Your task to perform on an android device: Search for a home improvement project you can do. Image 0: 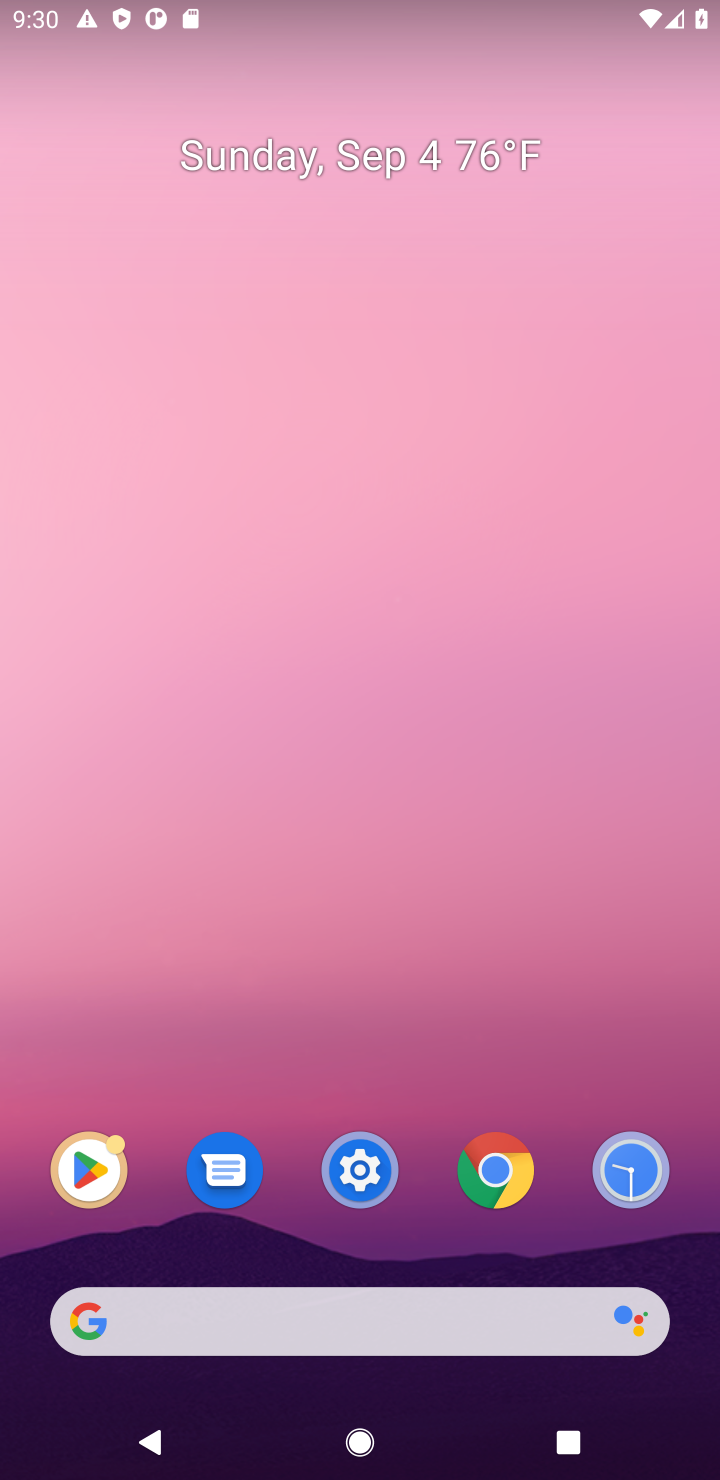
Step 0: click (654, 481)
Your task to perform on an android device: Search for a home improvement project you can do. Image 1: 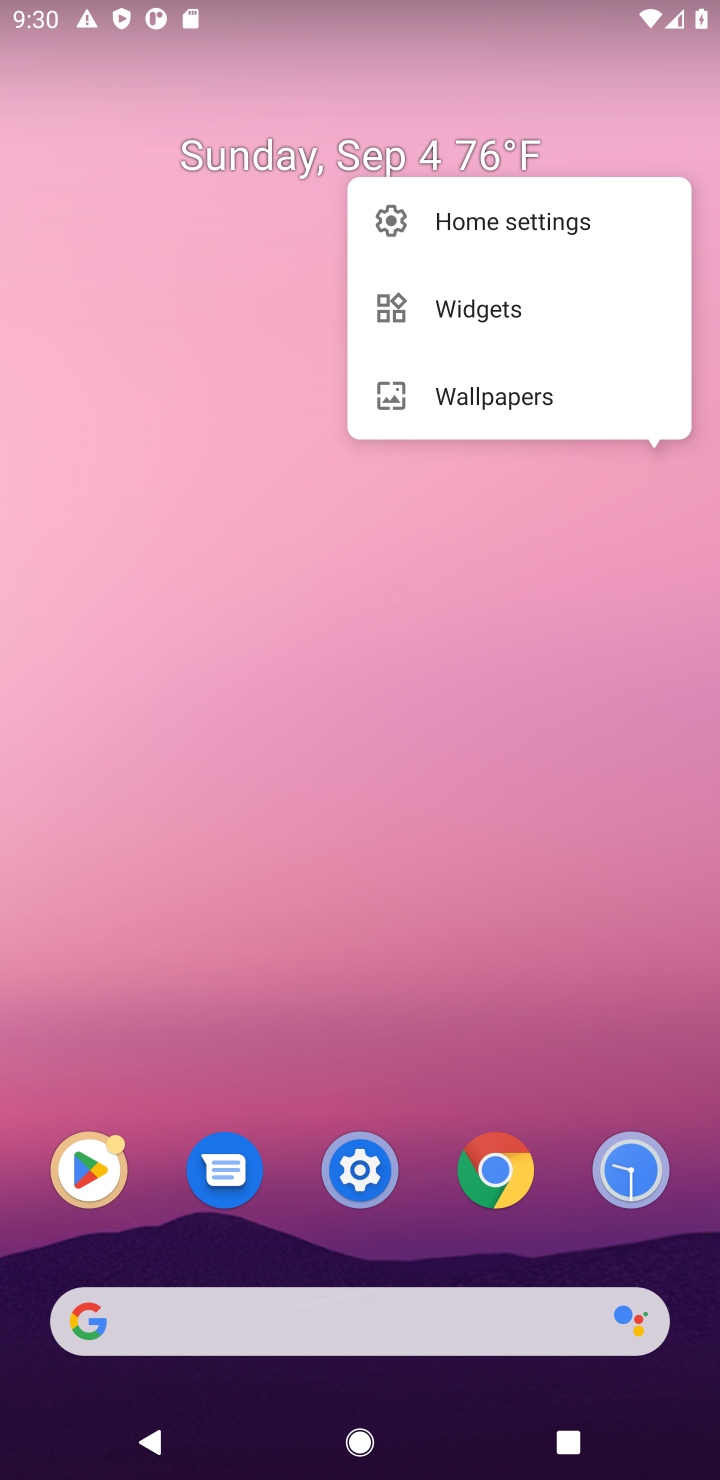
Step 1: click (430, 1329)
Your task to perform on an android device: Search for a home improvement project you can do. Image 2: 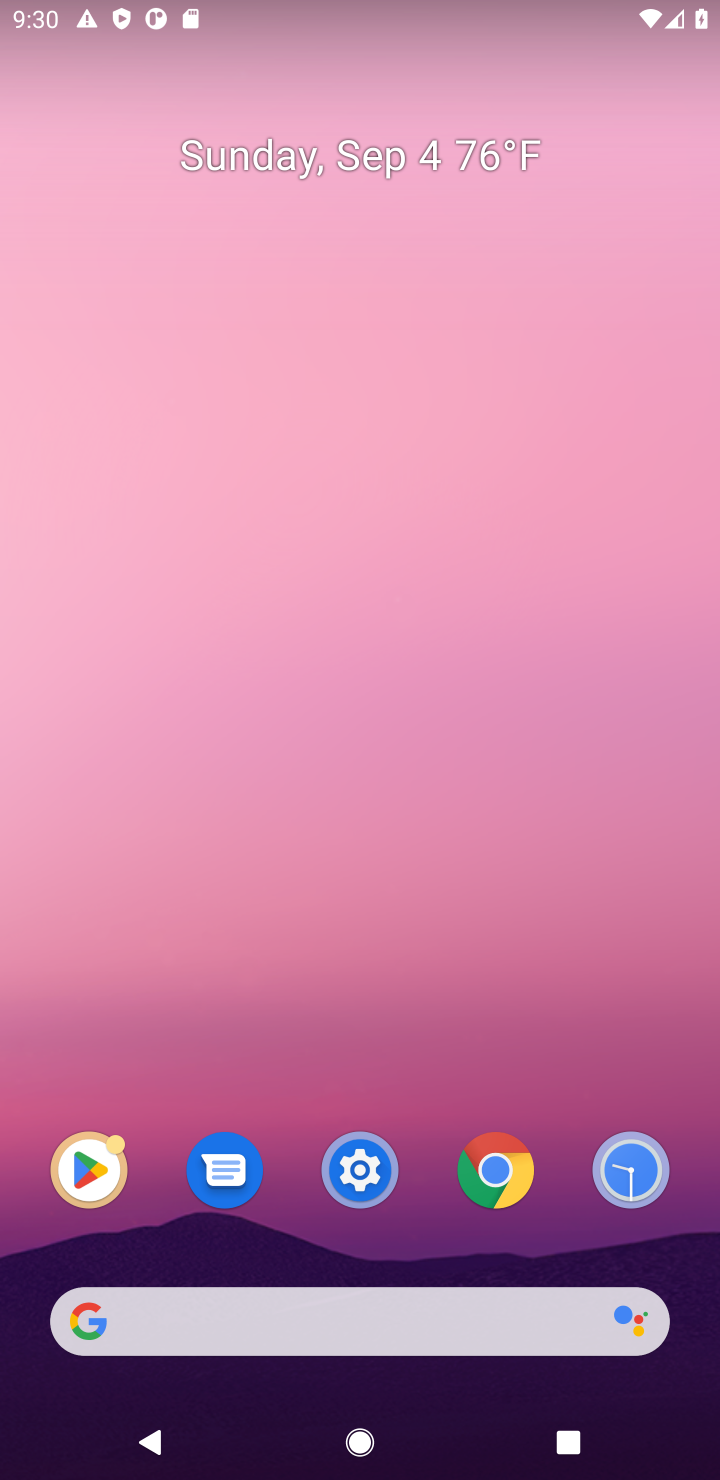
Step 2: click (430, 1332)
Your task to perform on an android device: Search for a home improvement project you can do. Image 3: 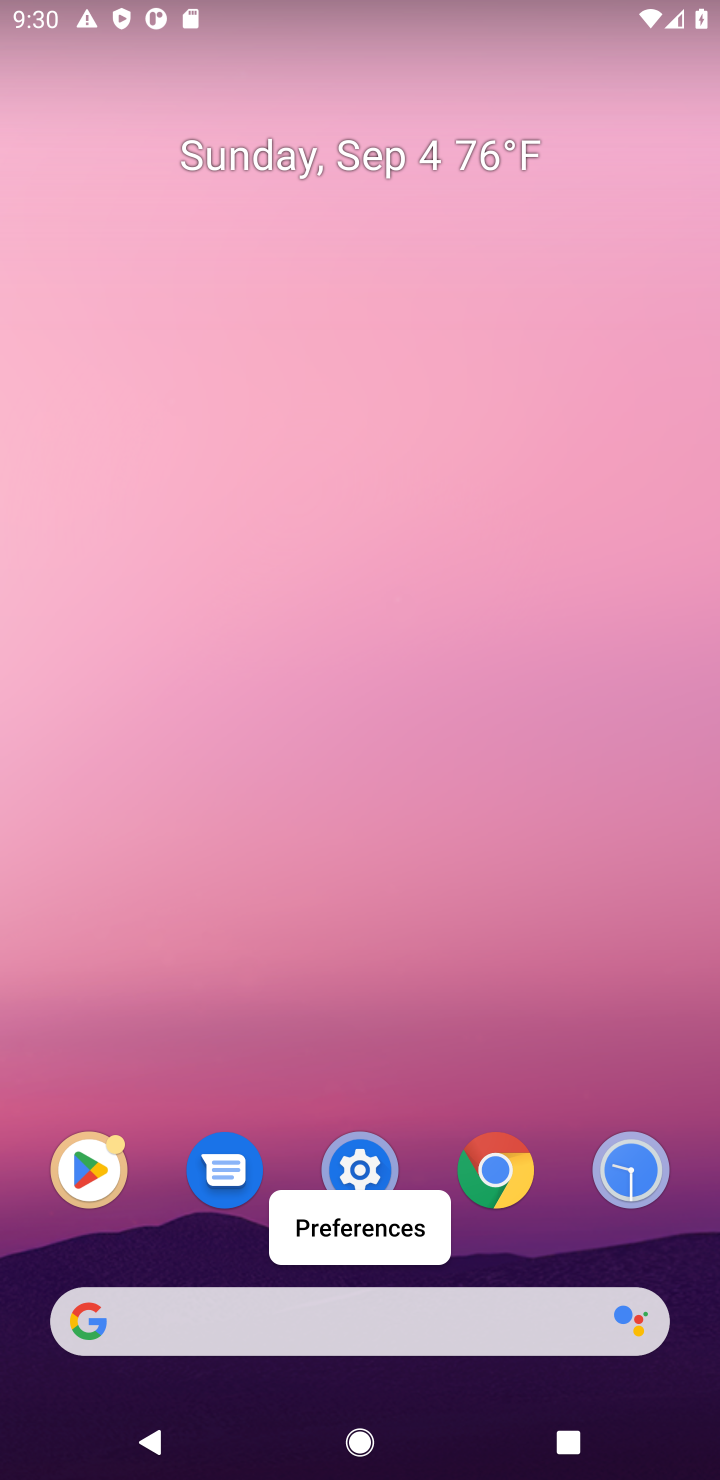
Step 3: click (439, 1327)
Your task to perform on an android device: Search for a home improvement project you can do. Image 4: 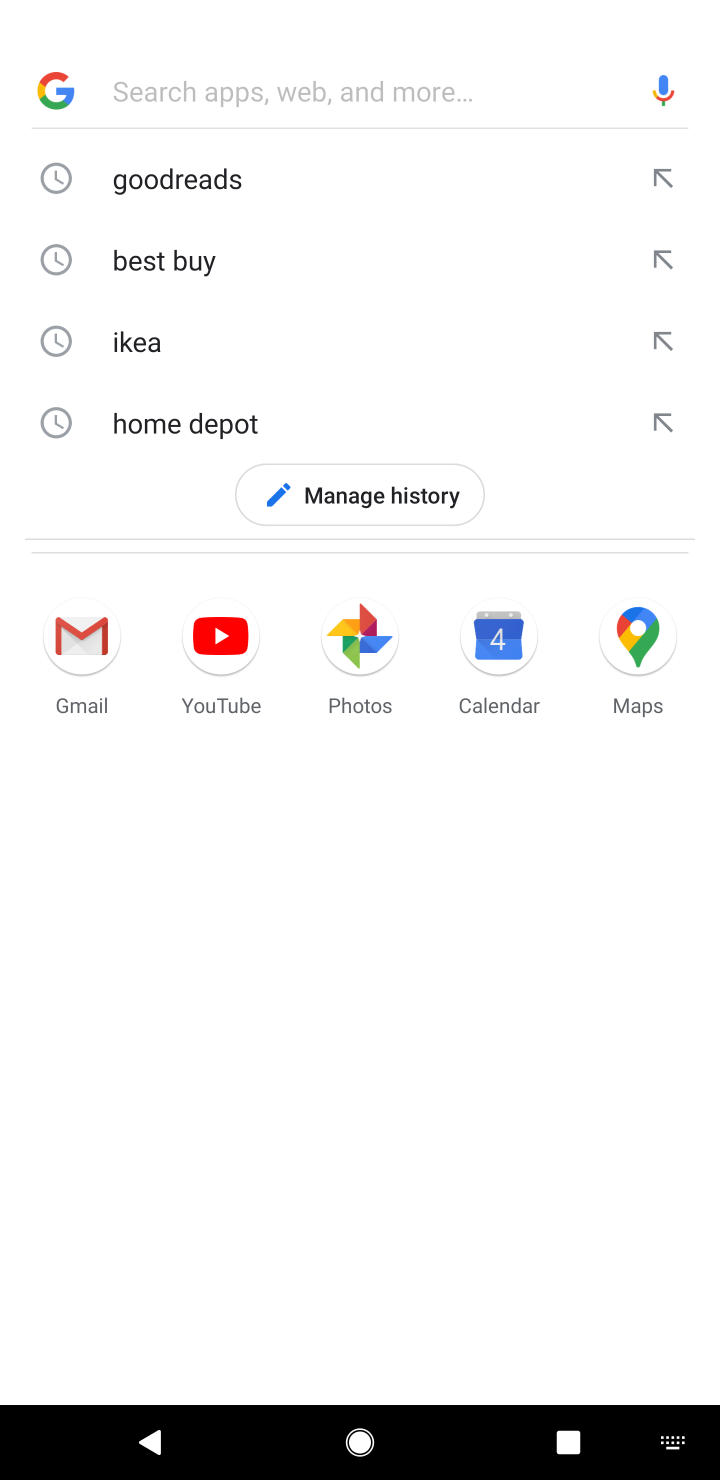
Step 4: type "home improvement project you can do"
Your task to perform on an android device: Search for a home improvement project you can do. Image 5: 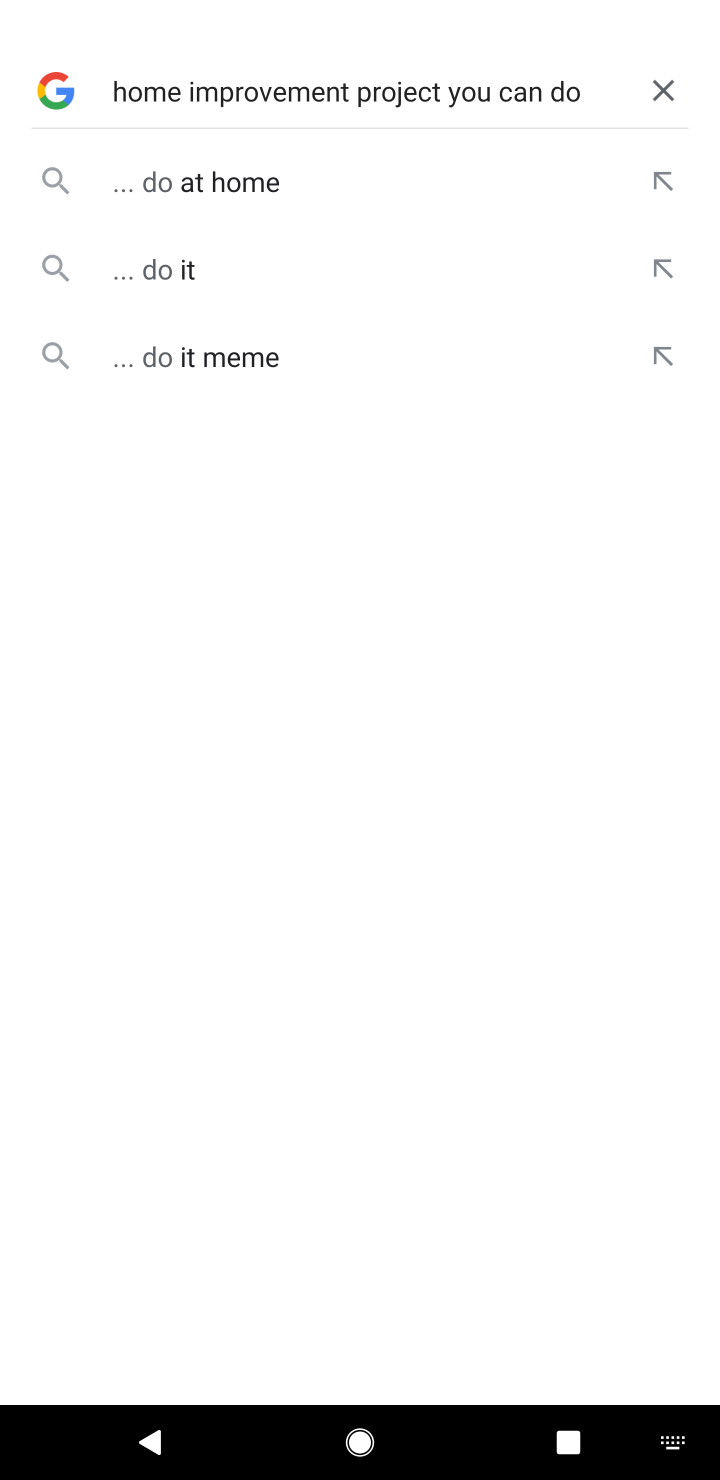
Step 5: click (342, 180)
Your task to perform on an android device: Search for a home improvement project you can do. Image 6: 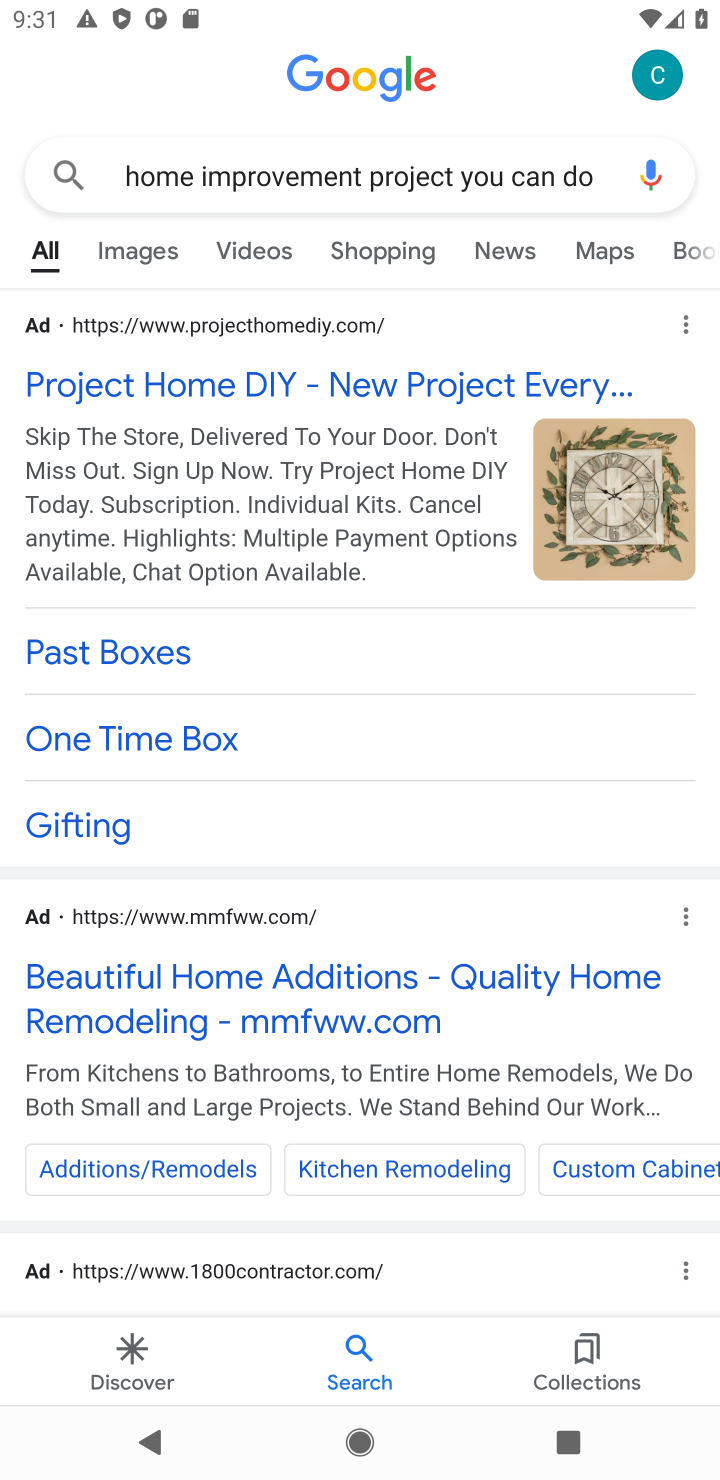
Step 6: drag from (400, 881) to (408, 627)
Your task to perform on an android device: Search for a home improvement project you can do. Image 7: 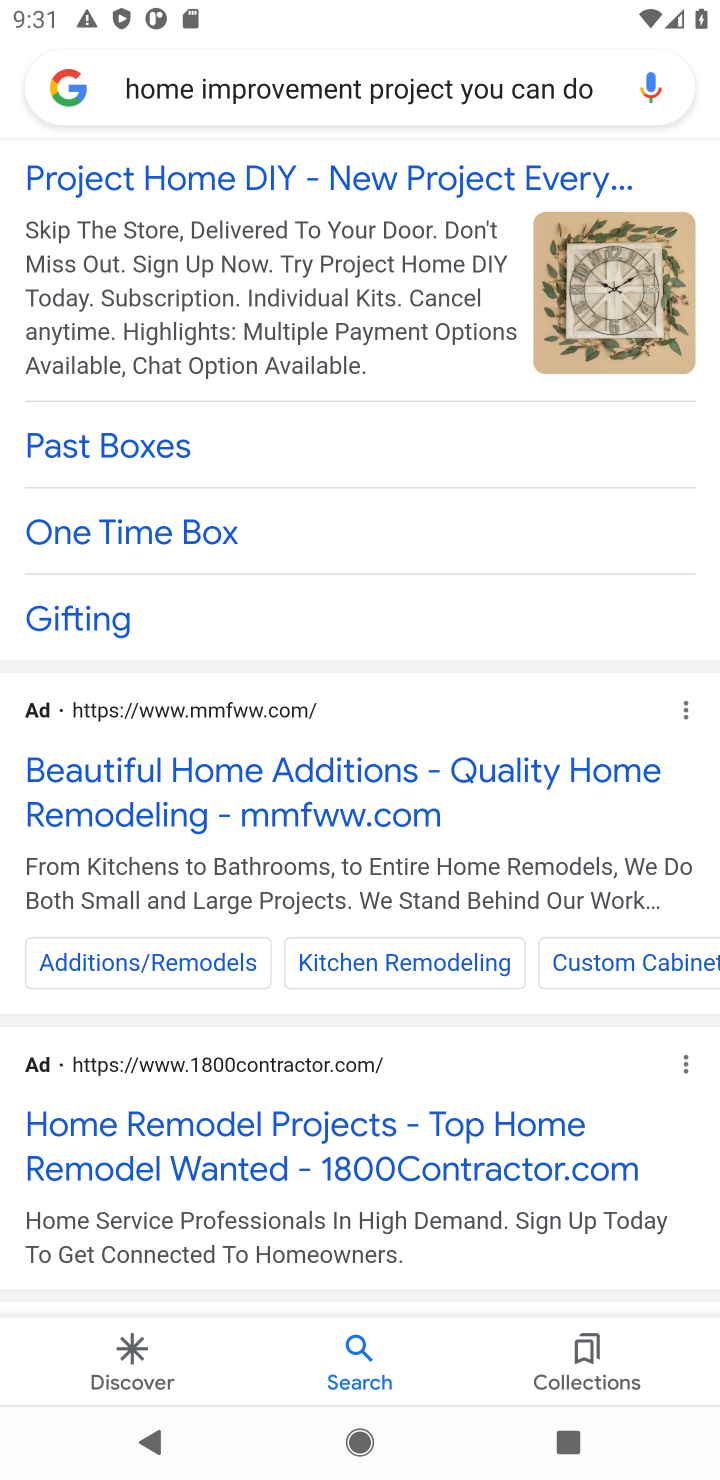
Step 7: drag from (388, 967) to (402, 701)
Your task to perform on an android device: Search for a home improvement project you can do. Image 8: 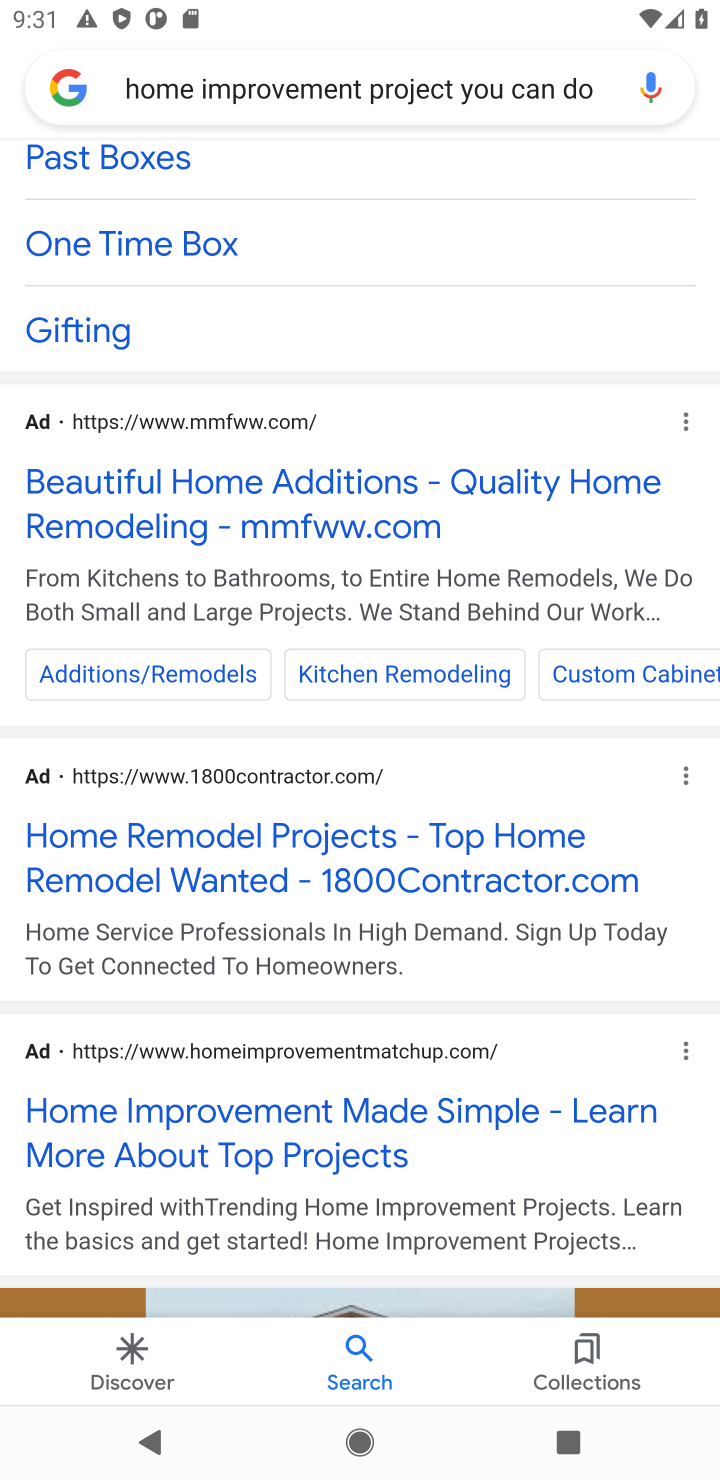
Step 8: drag from (401, 1200) to (462, 769)
Your task to perform on an android device: Search for a home improvement project you can do. Image 9: 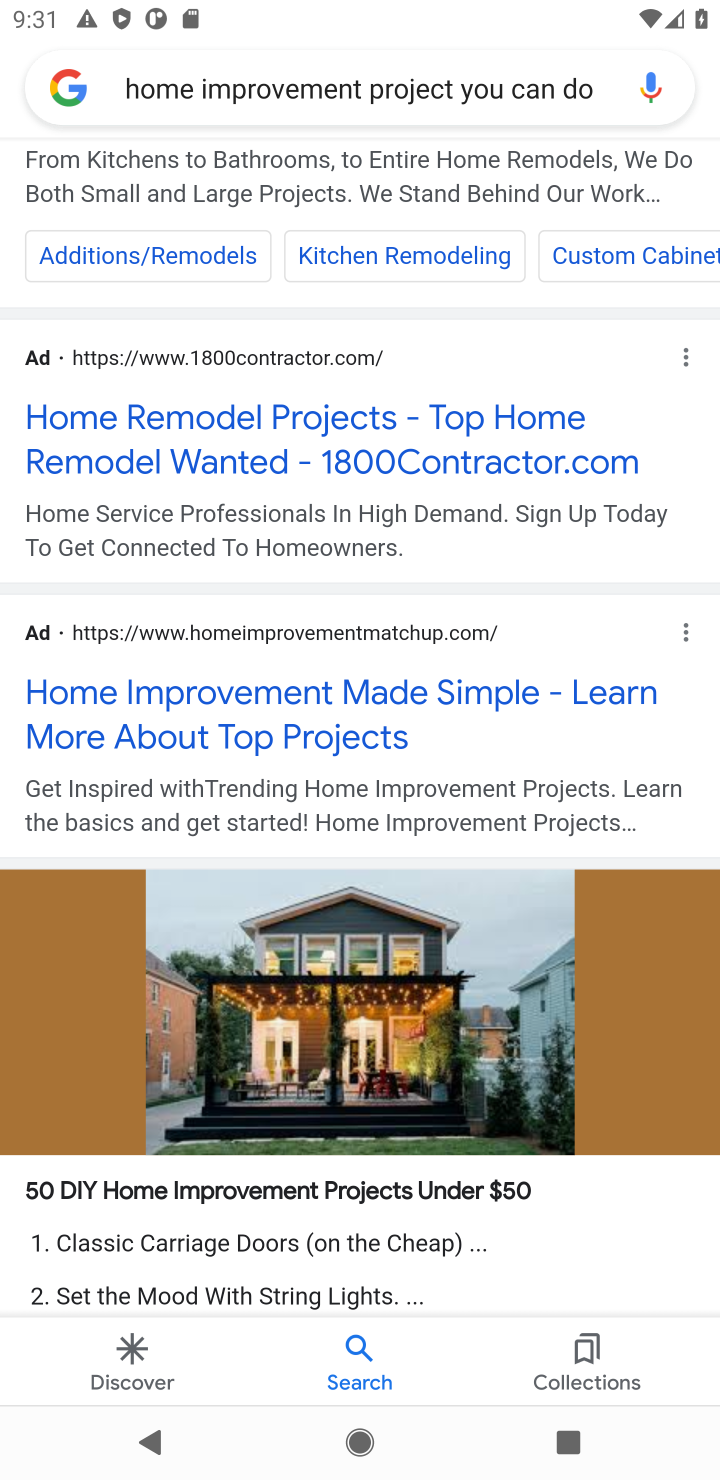
Step 9: drag from (464, 1090) to (457, 532)
Your task to perform on an android device: Search for a home improvement project you can do. Image 10: 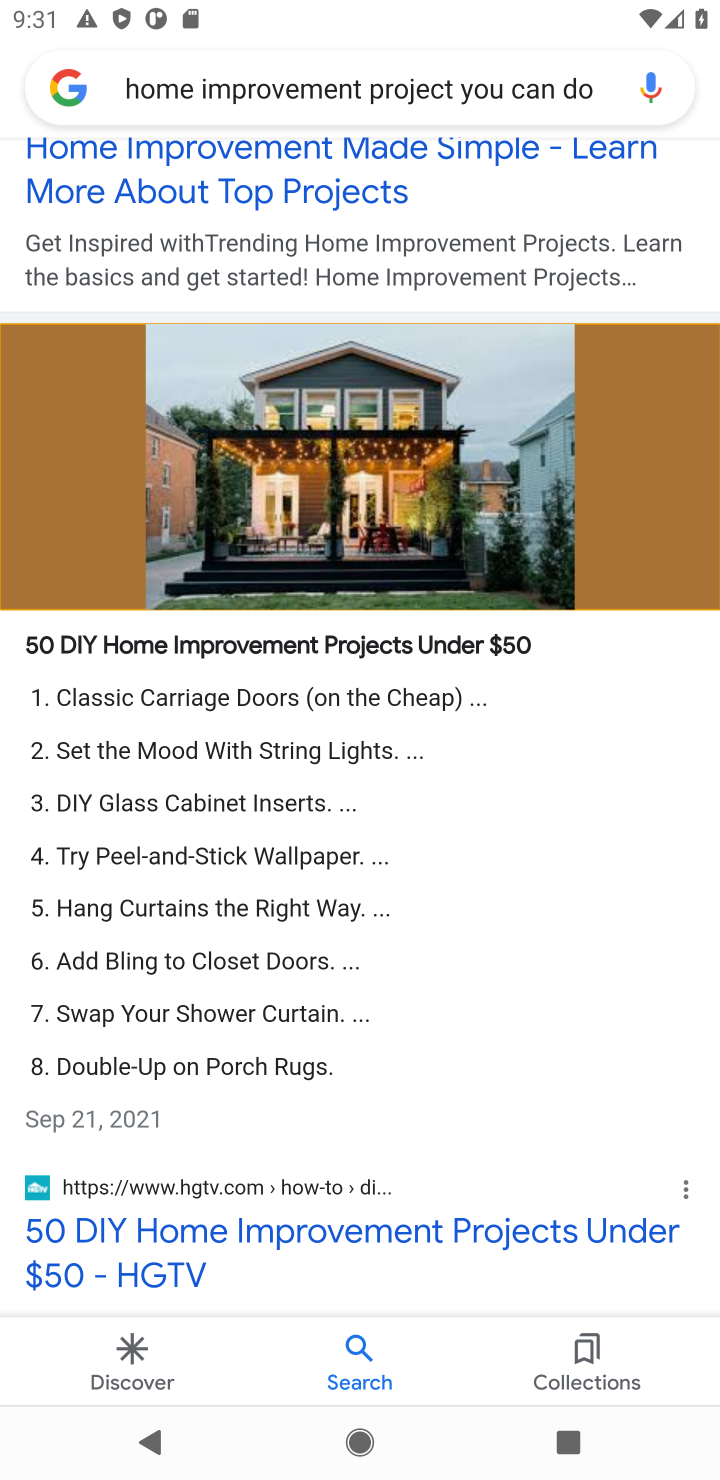
Step 10: click (476, 728)
Your task to perform on an android device: Search for a home improvement project you can do. Image 11: 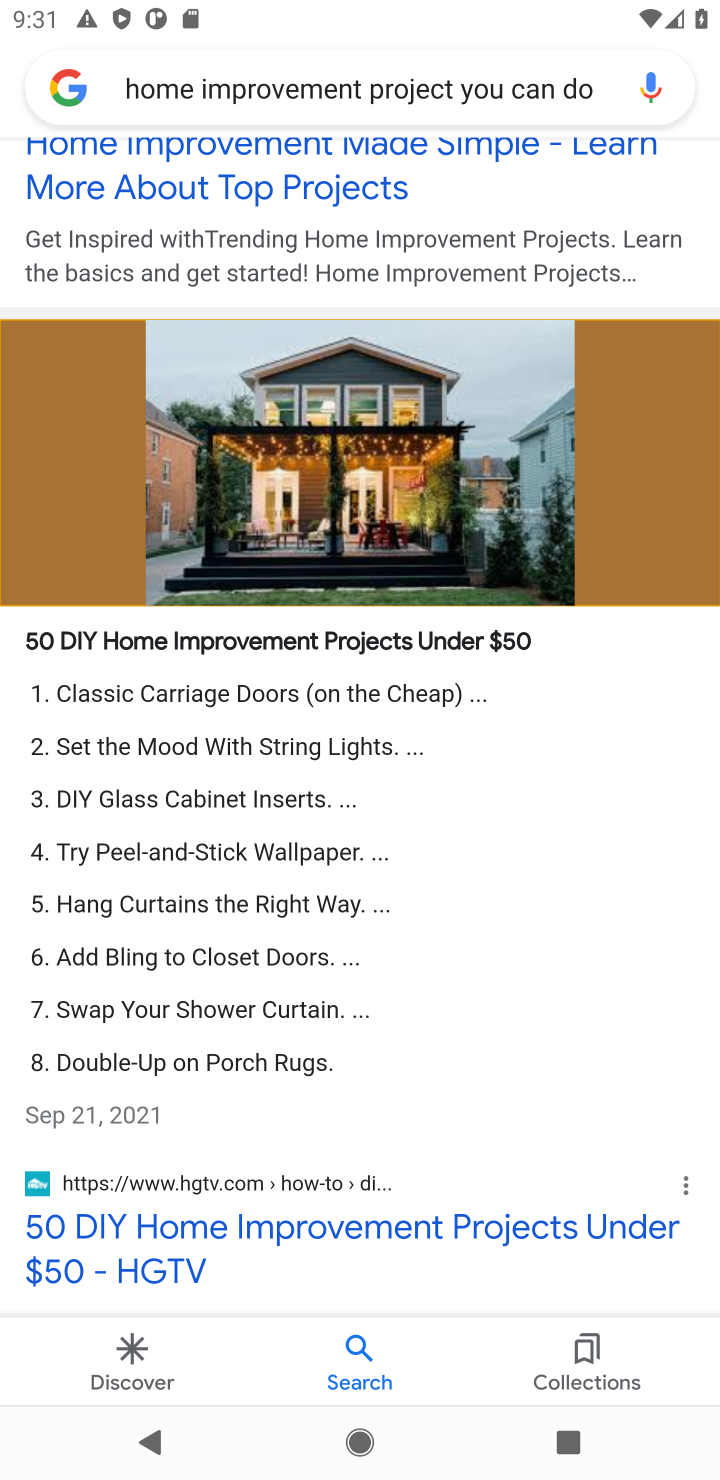
Step 11: click (537, 865)
Your task to perform on an android device: Search for a home improvement project you can do. Image 12: 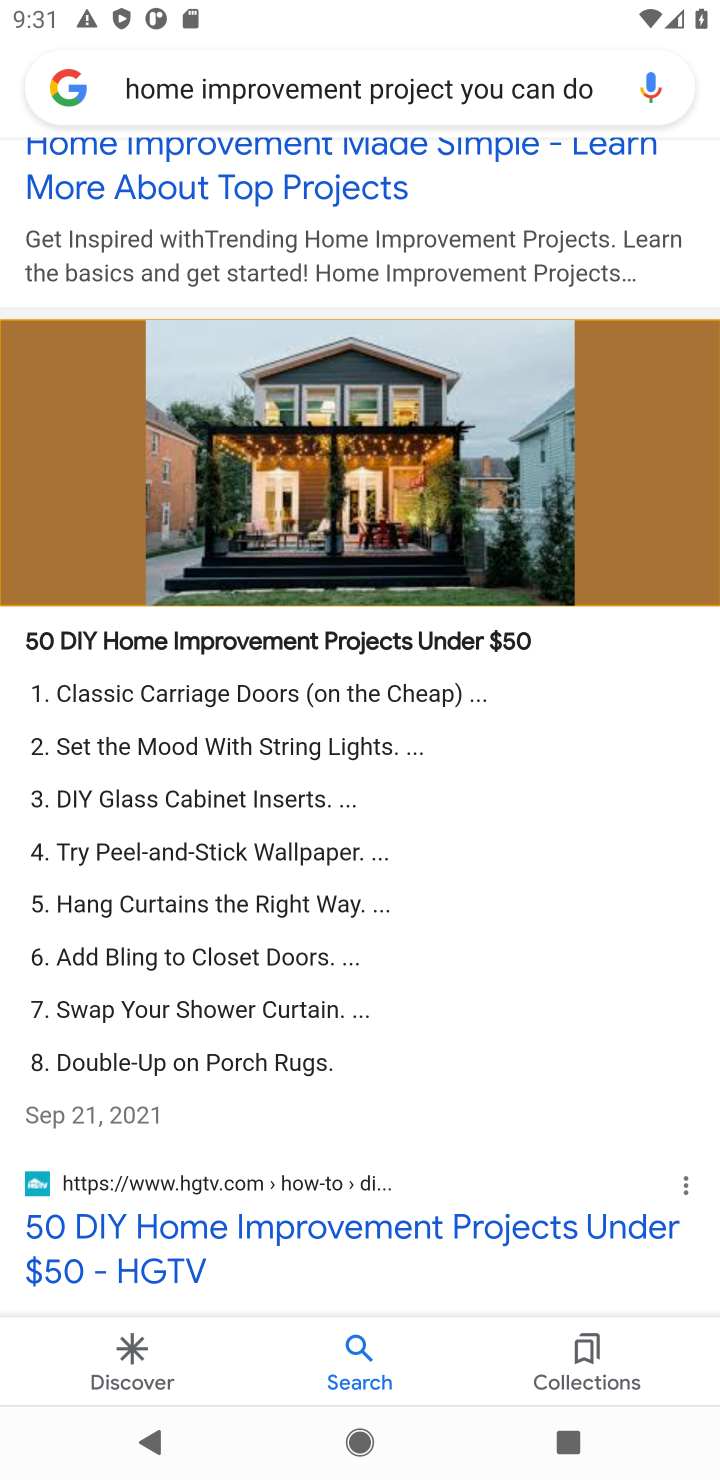
Step 12: task complete